Your task to perform on an android device: Open Chrome and go to settings Image 0: 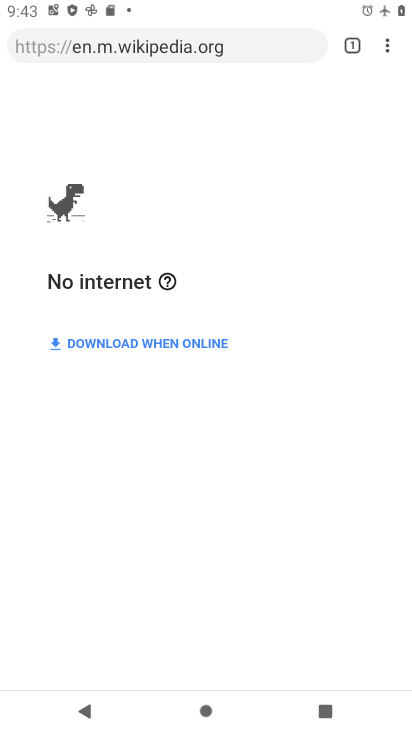
Step 0: press home button
Your task to perform on an android device: Open Chrome and go to settings Image 1: 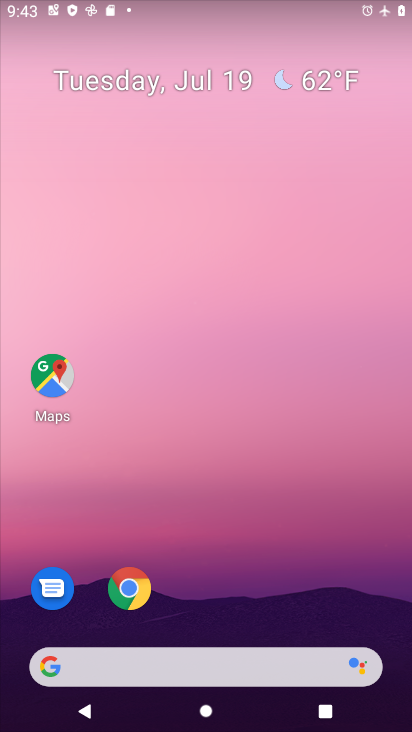
Step 1: drag from (321, 577) to (290, 18)
Your task to perform on an android device: Open Chrome and go to settings Image 2: 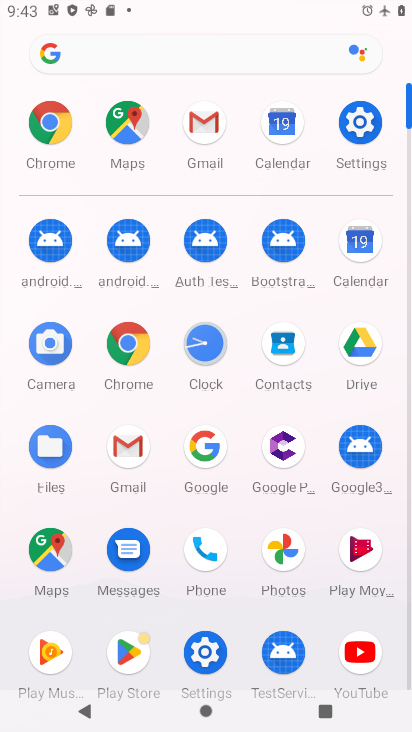
Step 2: click (47, 128)
Your task to perform on an android device: Open Chrome and go to settings Image 3: 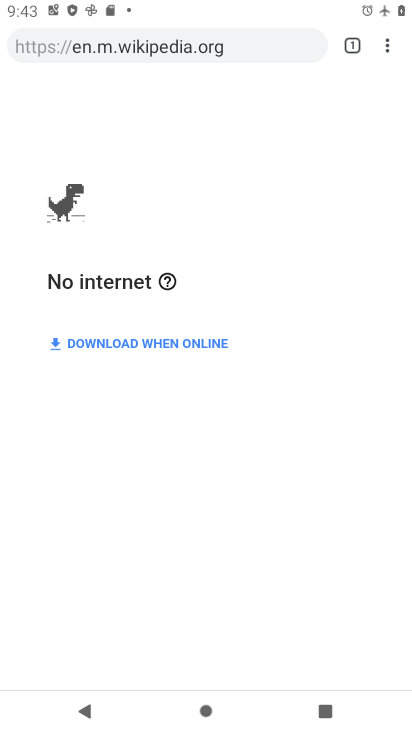
Step 3: task complete